Your task to perform on an android device: Go to Amazon Image 0: 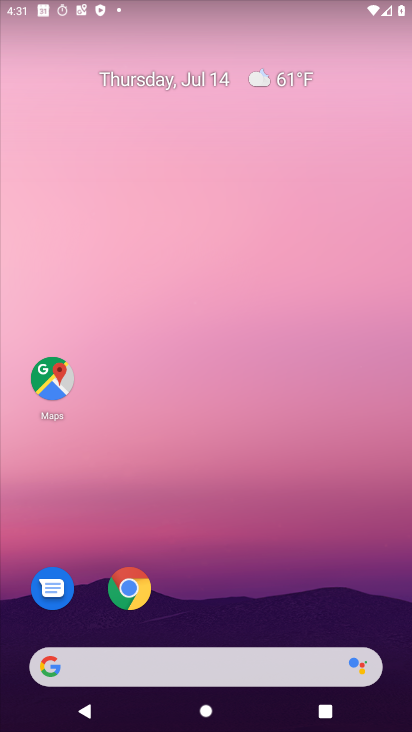
Step 0: drag from (209, 662) to (172, 172)
Your task to perform on an android device: Go to Amazon Image 1: 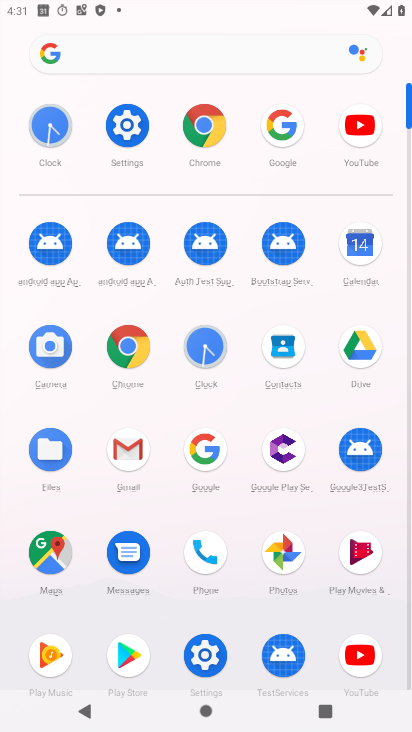
Step 1: click (204, 121)
Your task to perform on an android device: Go to Amazon Image 2: 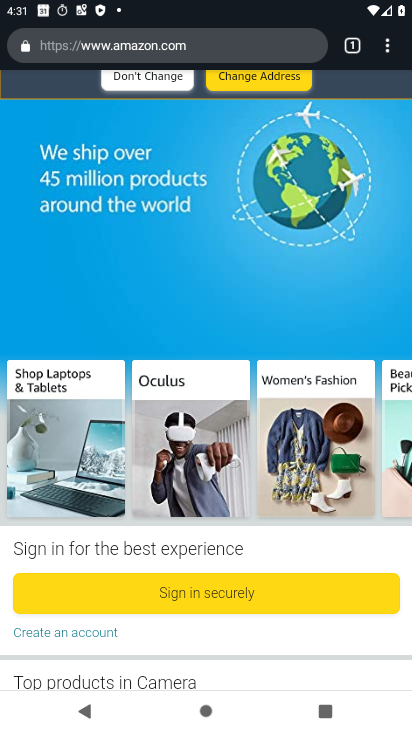
Step 2: click (264, 43)
Your task to perform on an android device: Go to Amazon Image 3: 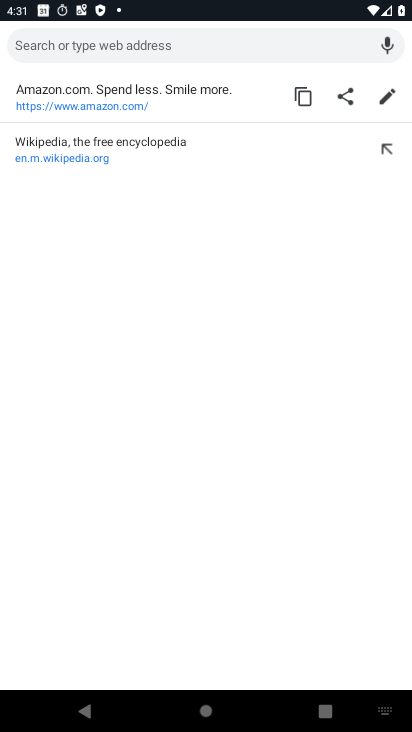
Step 3: click (120, 87)
Your task to perform on an android device: Go to Amazon Image 4: 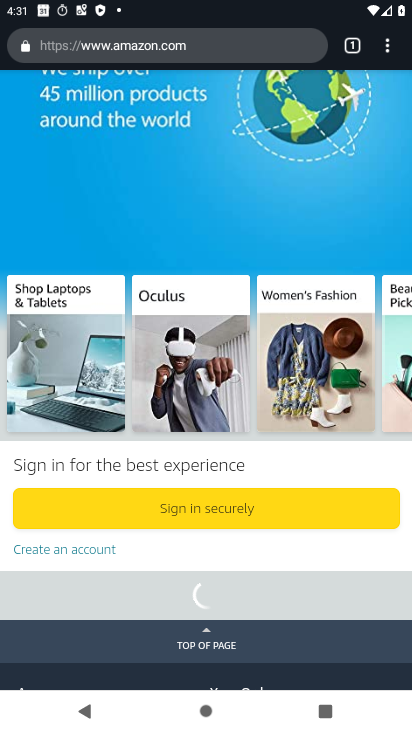
Step 4: task complete